Your task to perform on an android device: Go to Yahoo.com Image 0: 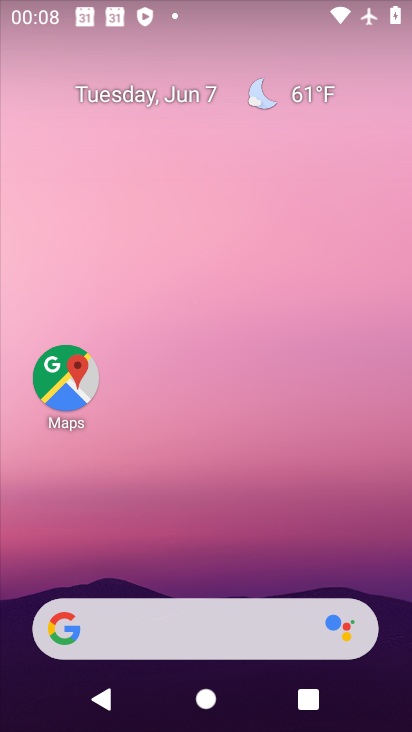
Step 0: drag from (146, 566) to (160, 76)
Your task to perform on an android device: Go to Yahoo.com Image 1: 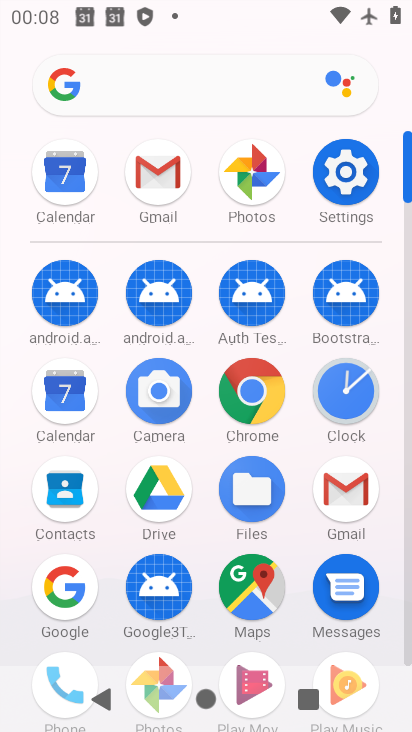
Step 1: click (253, 396)
Your task to perform on an android device: Go to Yahoo.com Image 2: 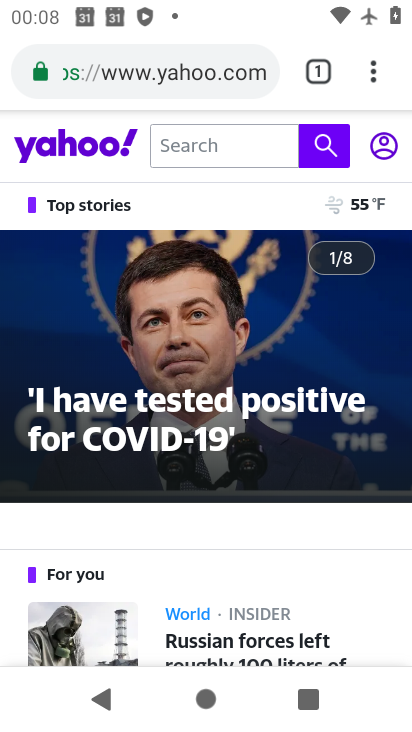
Step 2: task complete